Your task to perform on an android device: Open CNN.com Image 0: 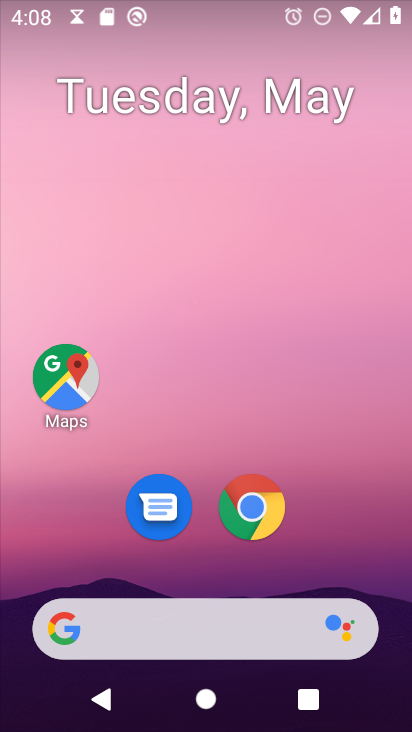
Step 0: click (245, 502)
Your task to perform on an android device: Open CNN.com Image 1: 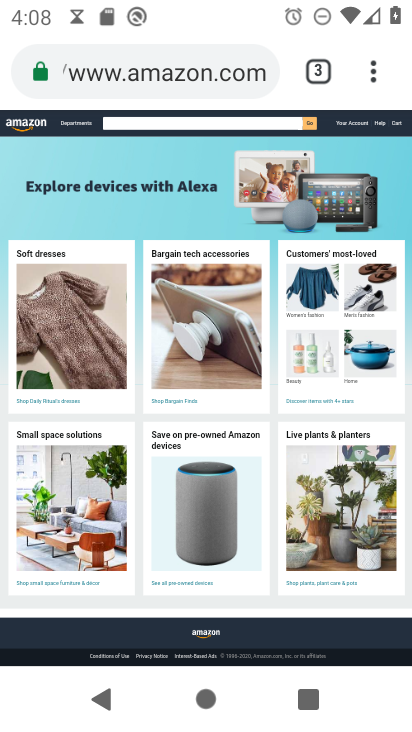
Step 1: click (125, 78)
Your task to perform on an android device: Open CNN.com Image 2: 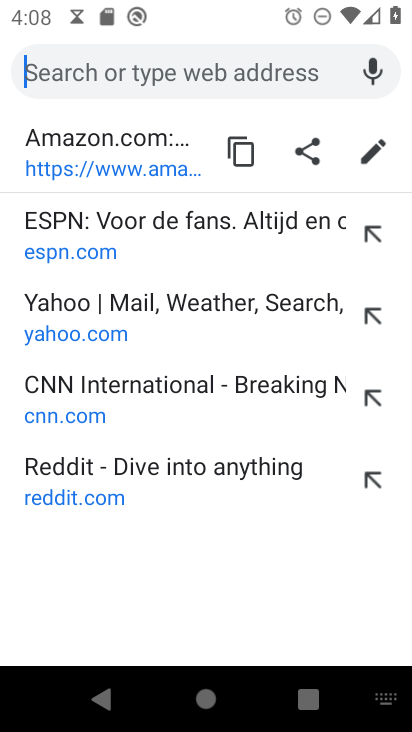
Step 2: type "CNN.com"
Your task to perform on an android device: Open CNN.com Image 3: 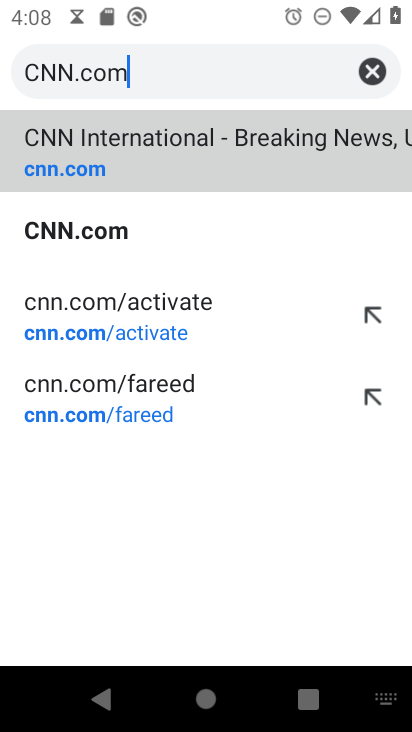
Step 3: click (111, 164)
Your task to perform on an android device: Open CNN.com Image 4: 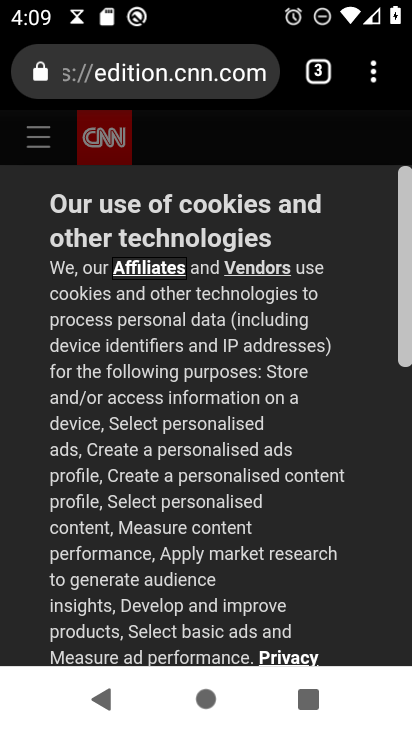
Step 4: task complete